Your task to perform on an android device: move an email to a new category in the gmail app Image 0: 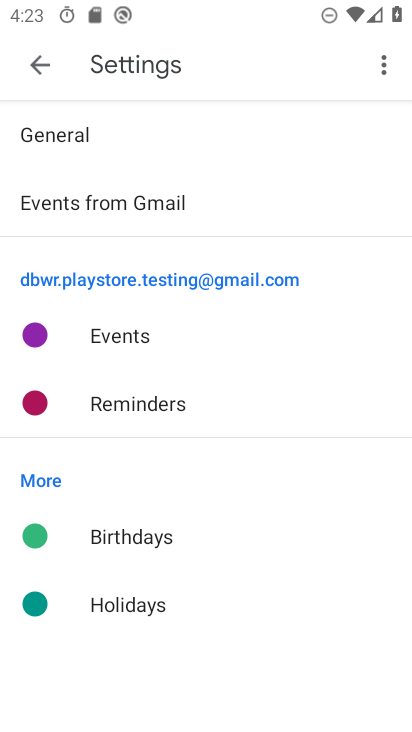
Step 0: press home button
Your task to perform on an android device: move an email to a new category in the gmail app Image 1: 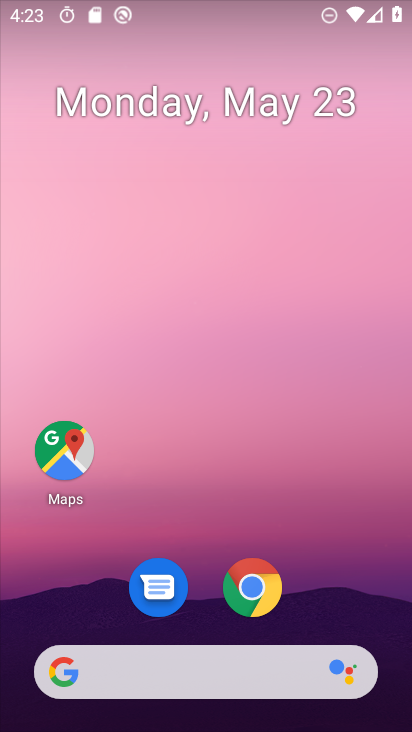
Step 1: drag from (202, 598) to (187, 0)
Your task to perform on an android device: move an email to a new category in the gmail app Image 2: 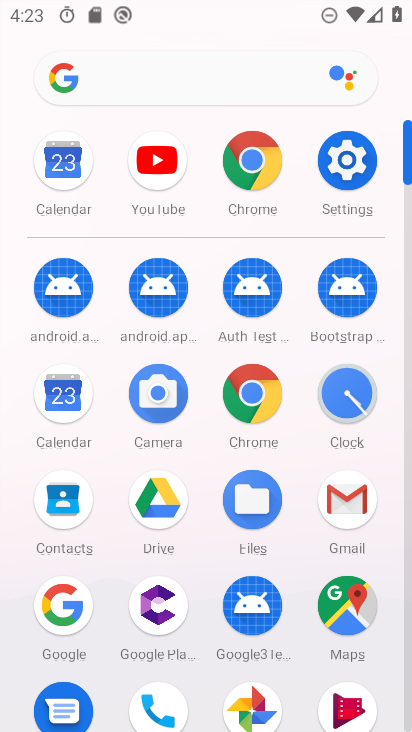
Step 2: click (345, 503)
Your task to perform on an android device: move an email to a new category in the gmail app Image 3: 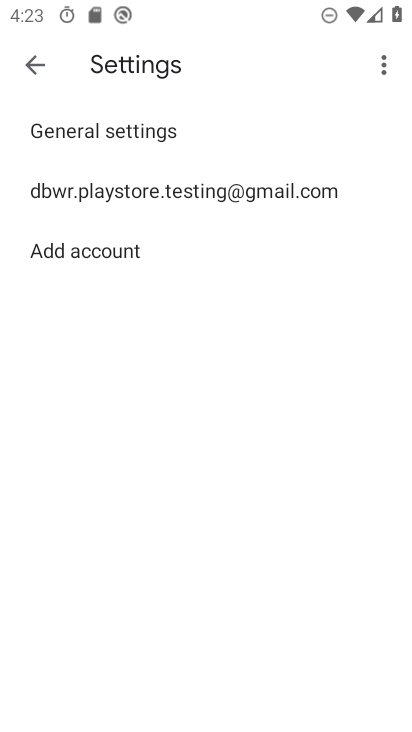
Step 3: click (42, 61)
Your task to perform on an android device: move an email to a new category in the gmail app Image 4: 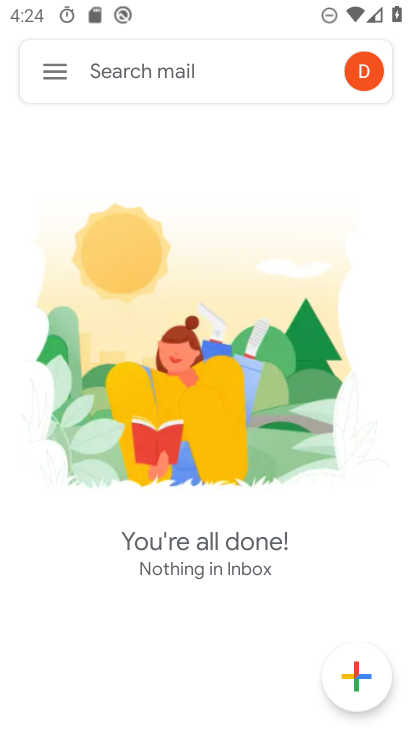
Step 4: click (48, 44)
Your task to perform on an android device: move an email to a new category in the gmail app Image 5: 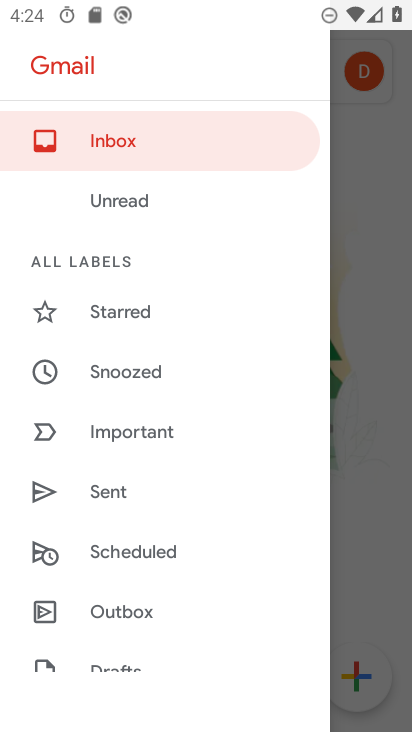
Step 5: drag from (128, 571) to (175, 259)
Your task to perform on an android device: move an email to a new category in the gmail app Image 6: 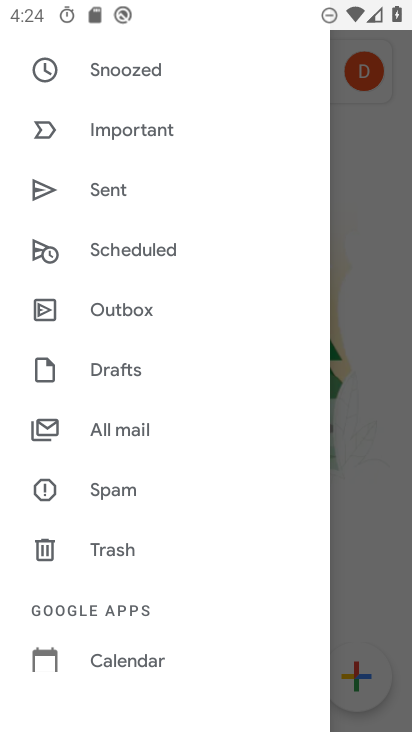
Step 6: click (133, 417)
Your task to perform on an android device: move an email to a new category in the gmail app Image 7: 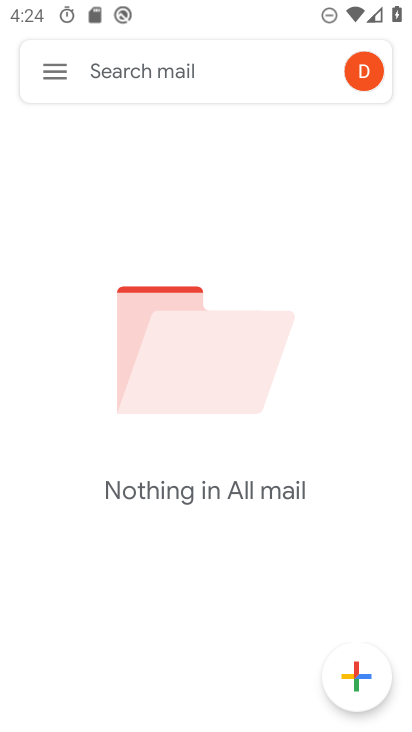
Step 7: task complete